Your task to perform on an android device: Open wifi settings Image 0: 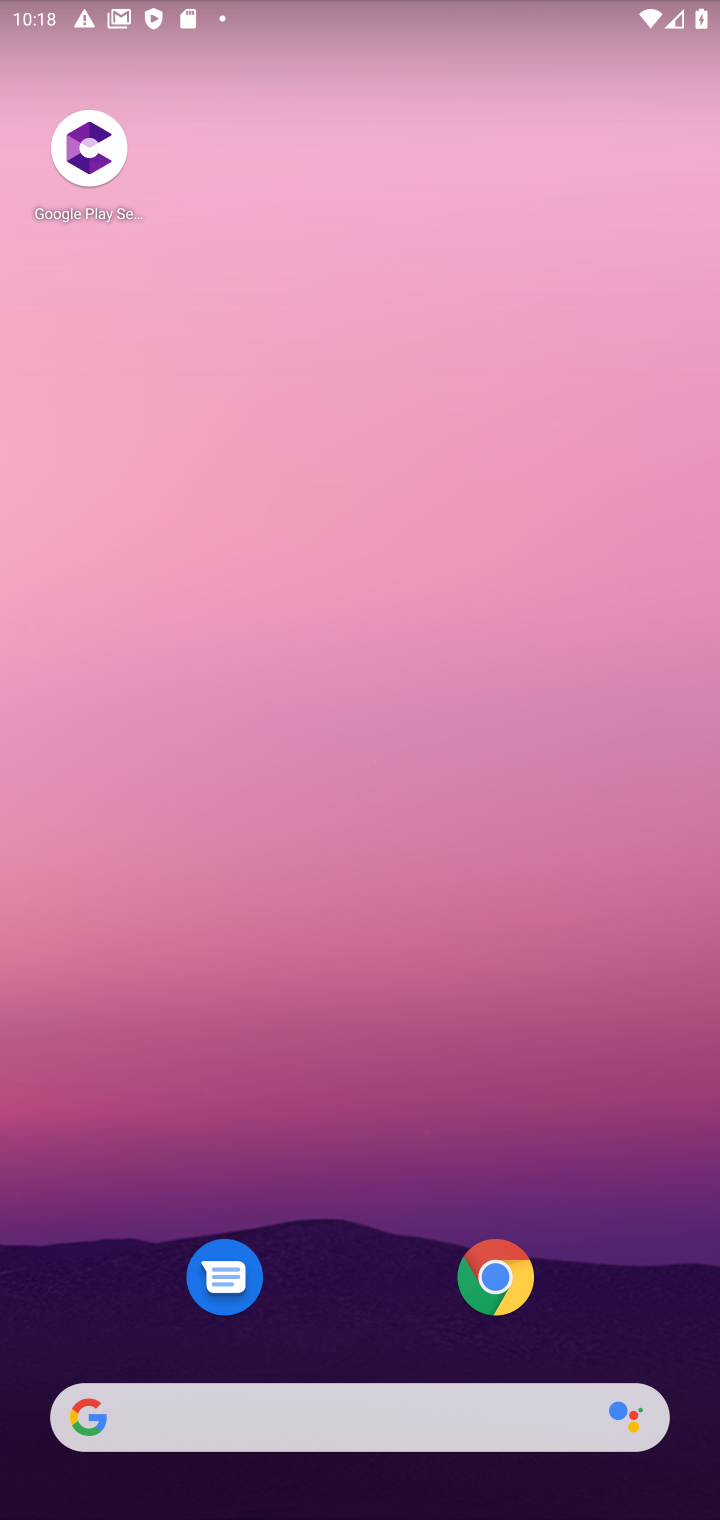
Step 0: drag from (386, 1444) to (392, 206)
Your task to perform on an android device: Open wifi settings Image 1: 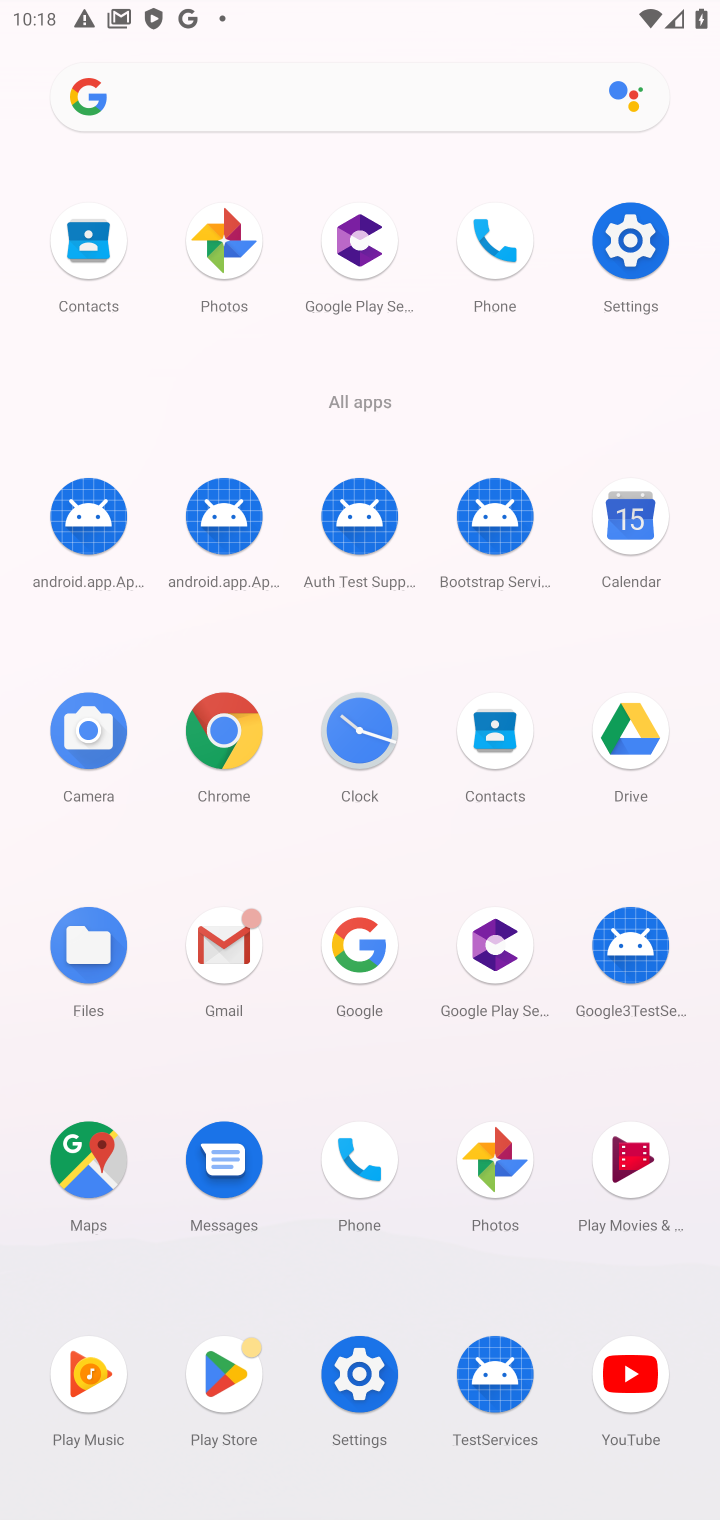
Step 1: click (650, 241)
Your task to perform on an android device: Open wifi settings Image 2: 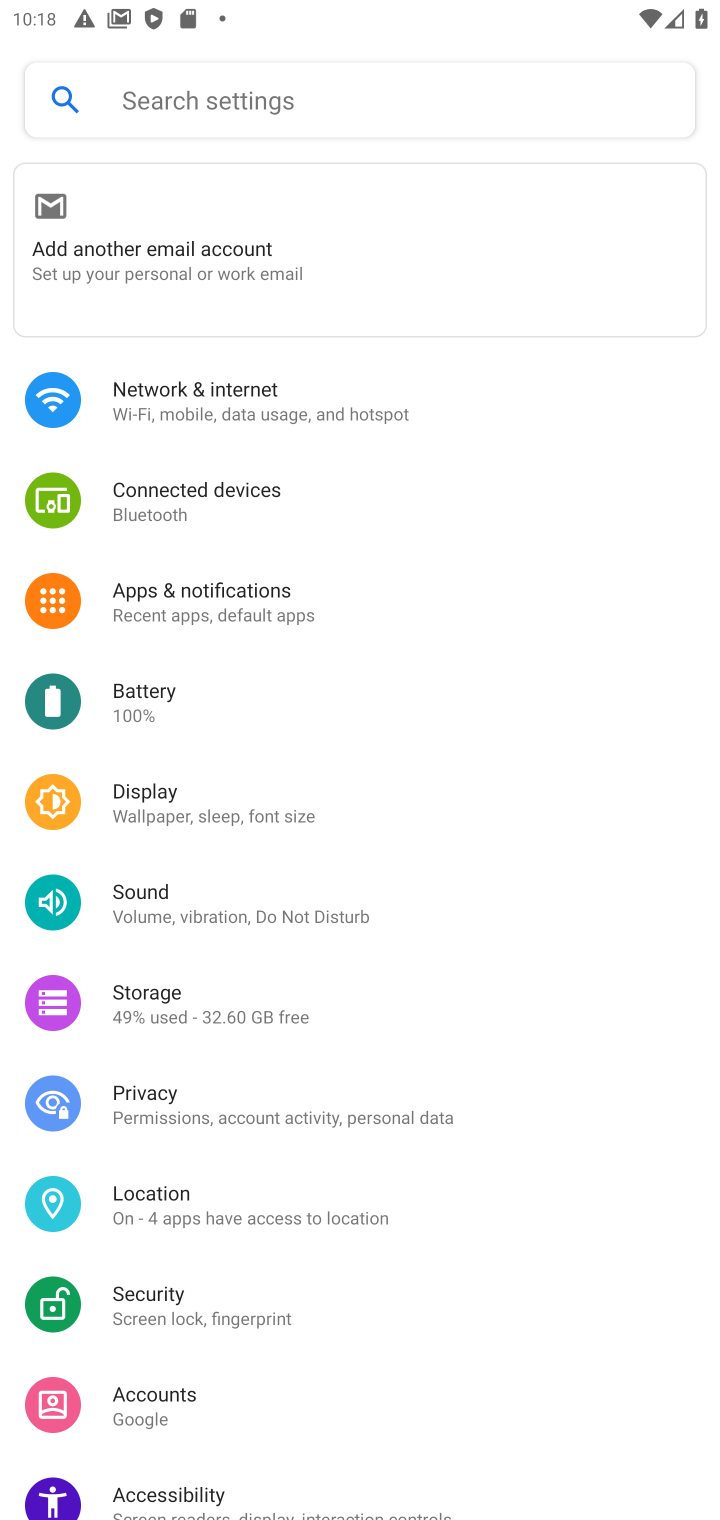
Step 2: click (260, 392)
Your task to perform on an android device: Open wifi settings Image 3: 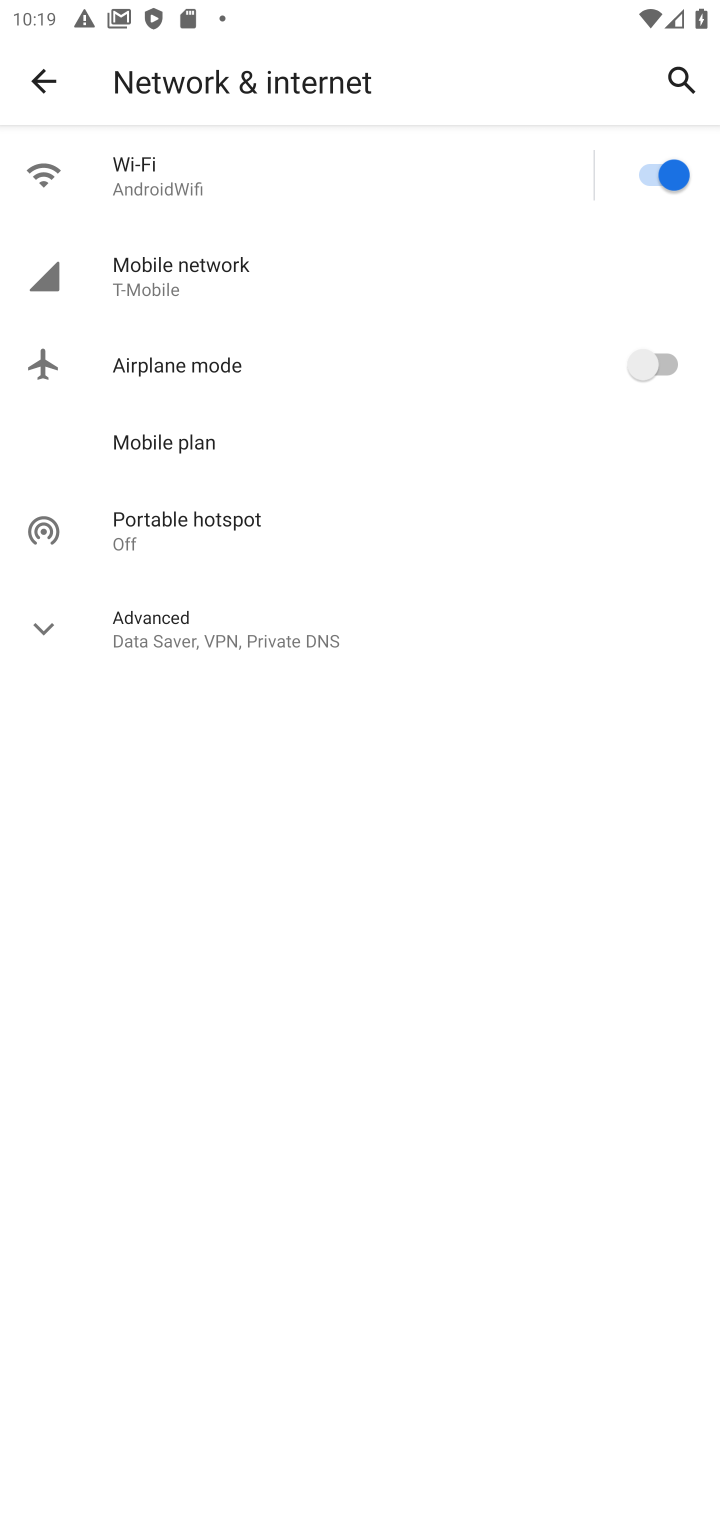
Step 3: click (210, 199)
Your task to perform on an android device: Open wifi settings Image 4: 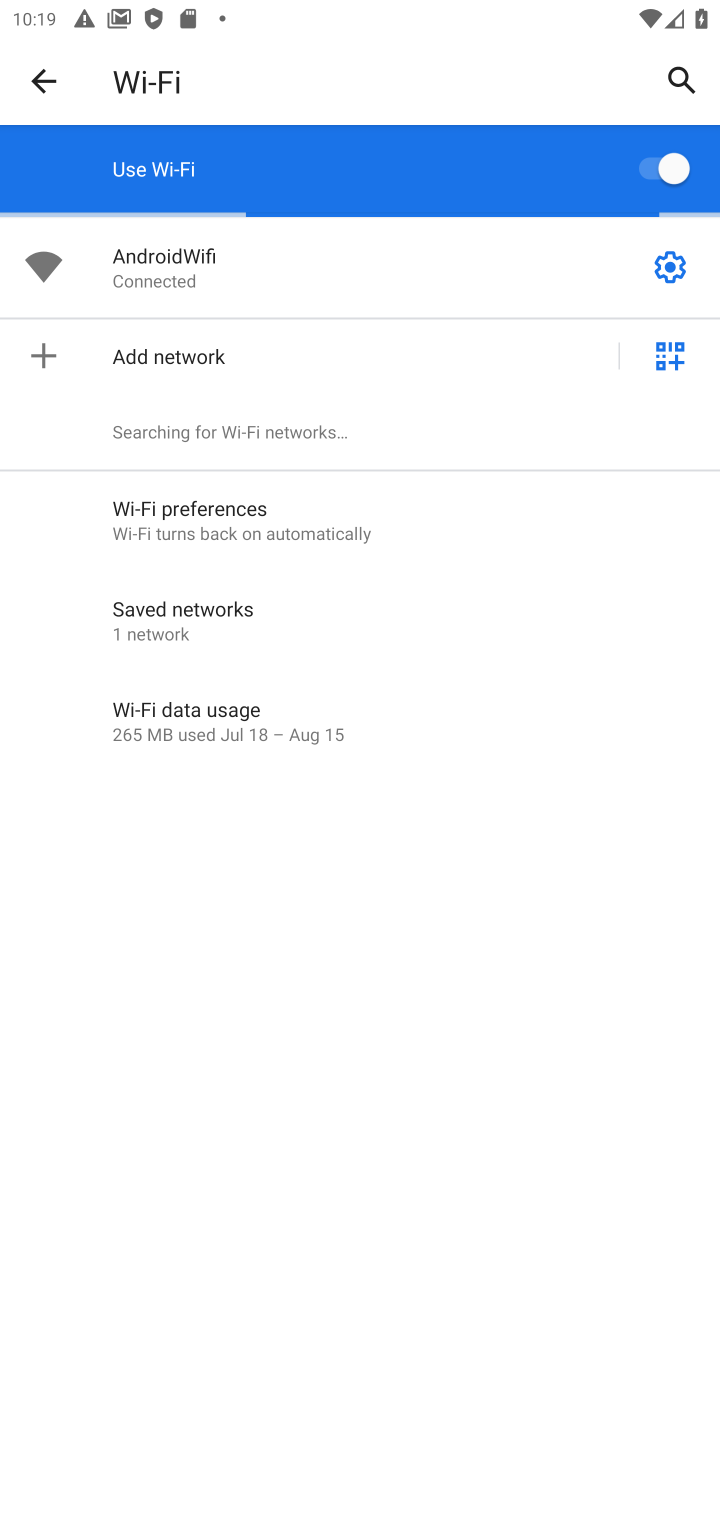
Step 4: task complete